Your task to perform on an android device: change the clock style Image 0: 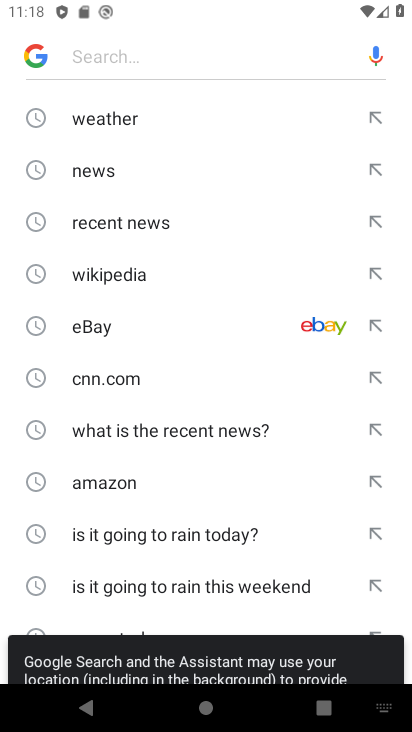
Step 0: press home button
Your task to perform on an android device: change the clock style Image 1: 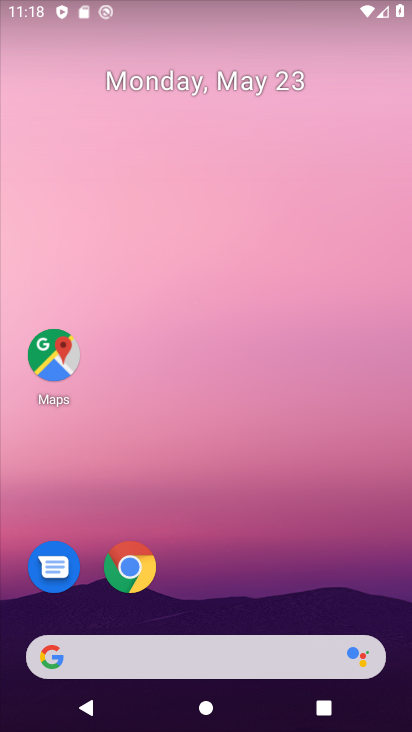
Step 1: drag from (334, 554) to (314, 209)
Your task to perform on an android device: change the clock style Image 2: 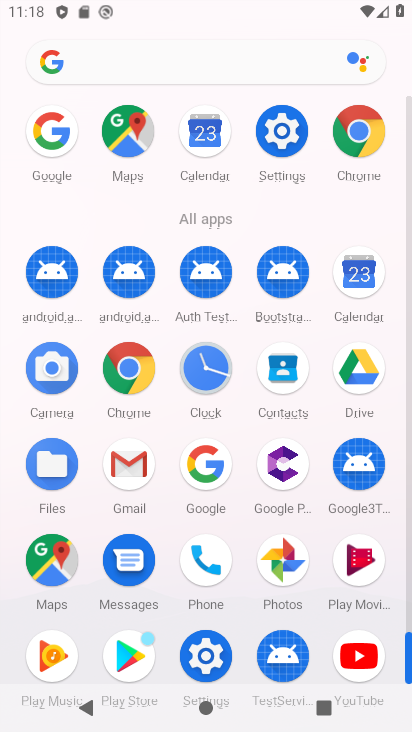
Step 2: click (198, 369)
Your task to perform on an android device: change the clock style Image 3: 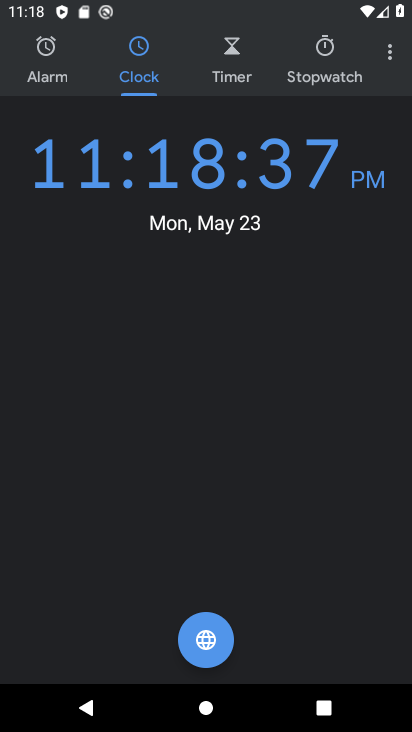
Step 3: click (386, 73)
Your task to perform on an android device: change the clock style Image 4: 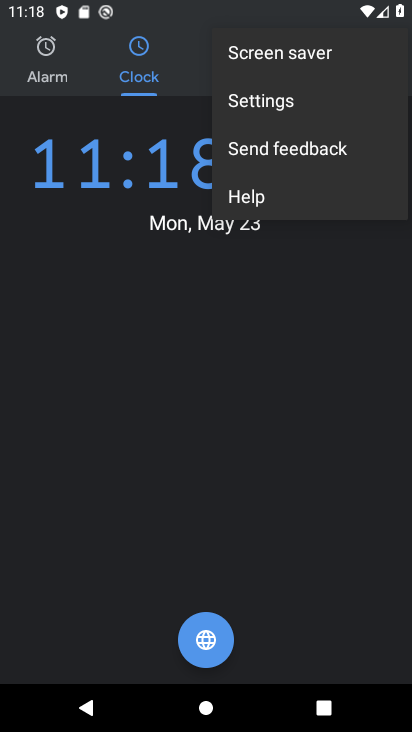
Step 4: click (287, 103)
Your task to perform on an android device: change the clock style Image 5: 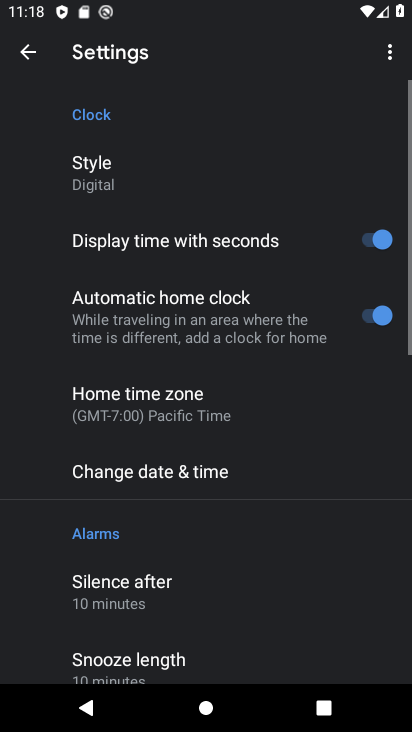
Step 5: click (116, 156)
Your task to perform on an android device: change the clock style Image 6: 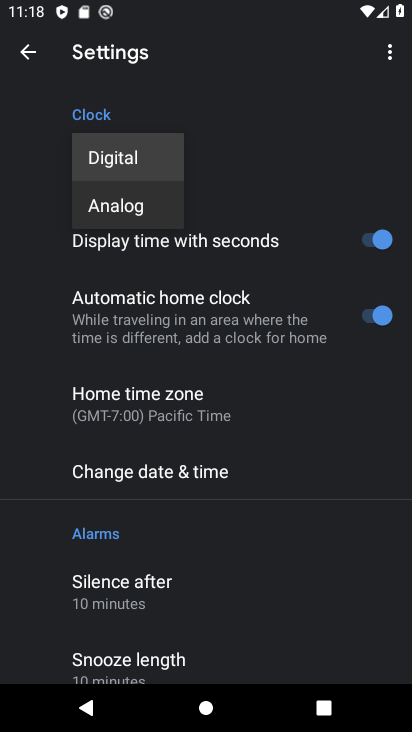
Step 6: click (172, 205)
Your task to perform on an android device: change the clock style Image 7: 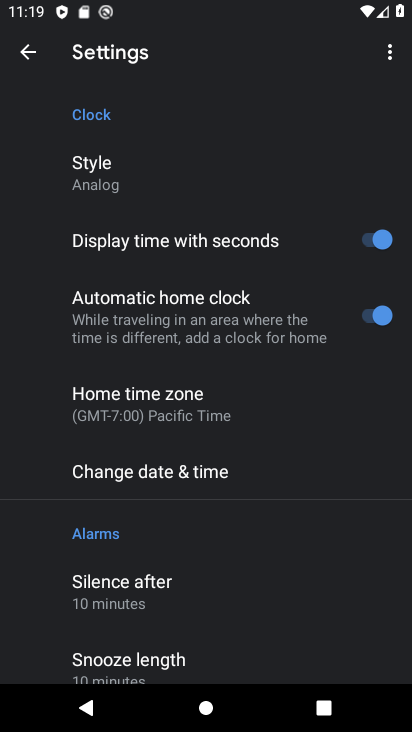
Step 7: task complete